Your task to perform on an android device: show emergency info Image 0: 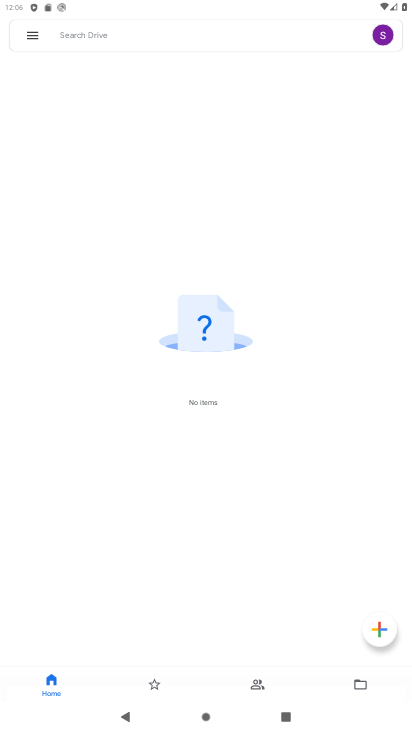
Step 0: press back button
Your task to perform on an android device: show emergency info Image 1: 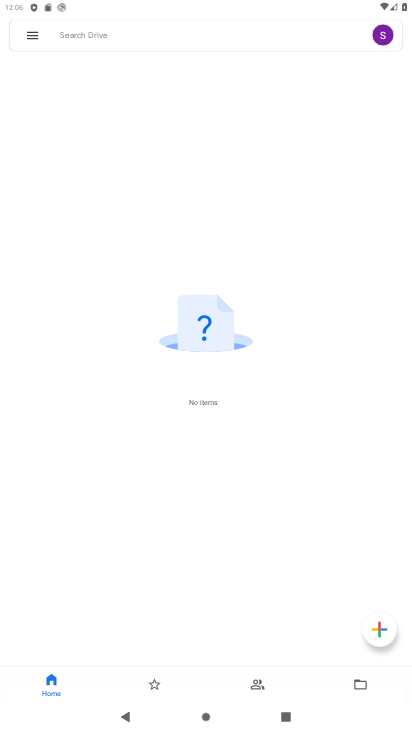
Step 1: press back button
Your task to perform on an android device: show emergency info Image 2: 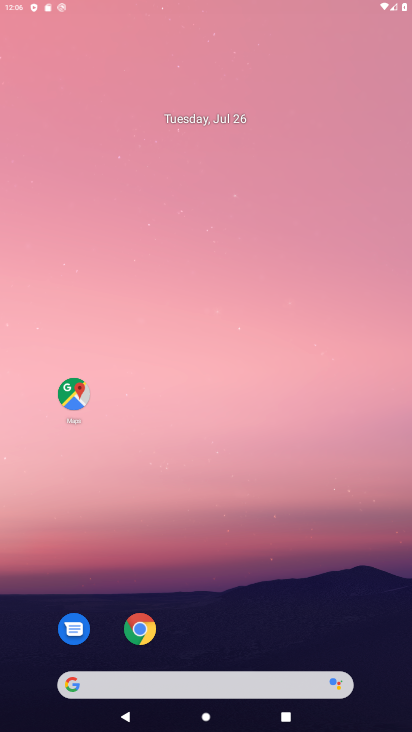
Step 2: press back button
Your task to perform on an android device: show emergency info Image 3: 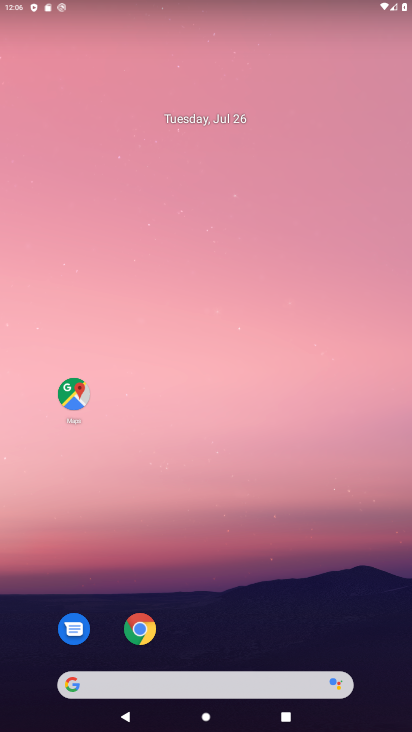
Step 3: drag from (231, 684) to (150, 55)
Your task to perform on an android device: show emergency info Image 4: 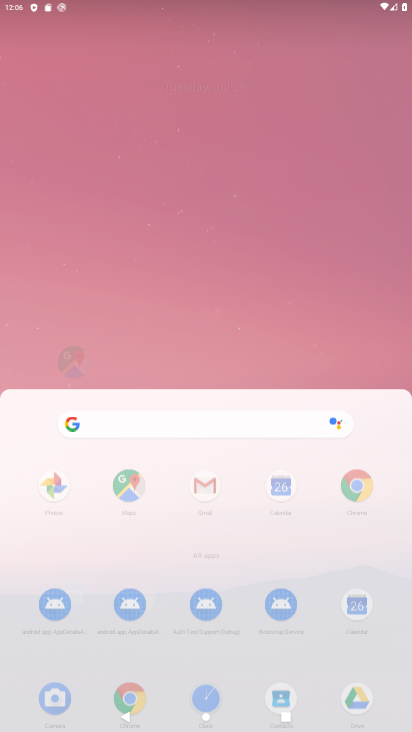
Step 4: drag from (225, 476) to (212, 59)
Your task to perform on an android device: show emergency info Image 5: 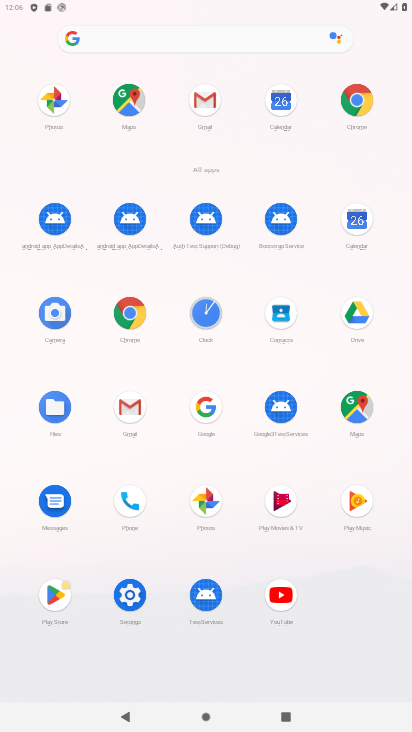
Step 5: click (356, 102)
Your task to perform on an android device: show emergency info Image 6: 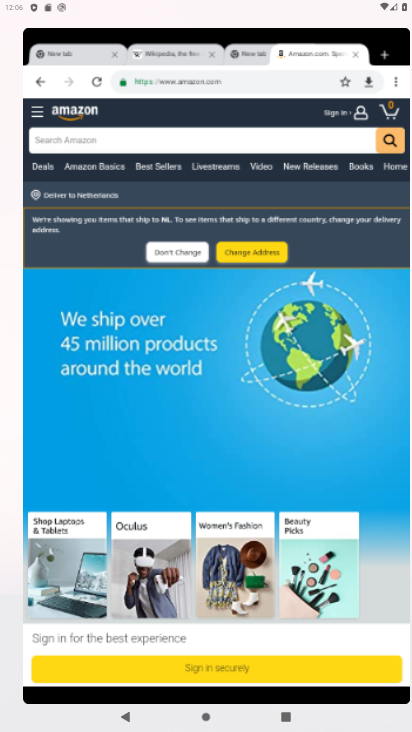
Step 6: click (360, 103)
Your task to perform on an android device: show emergency info Image 7: 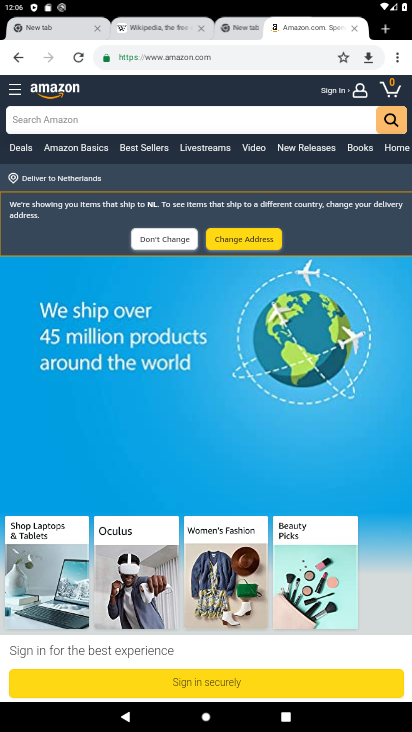
Step 7: press back button
Your task to perform on an android device: show emergency info Image 8: 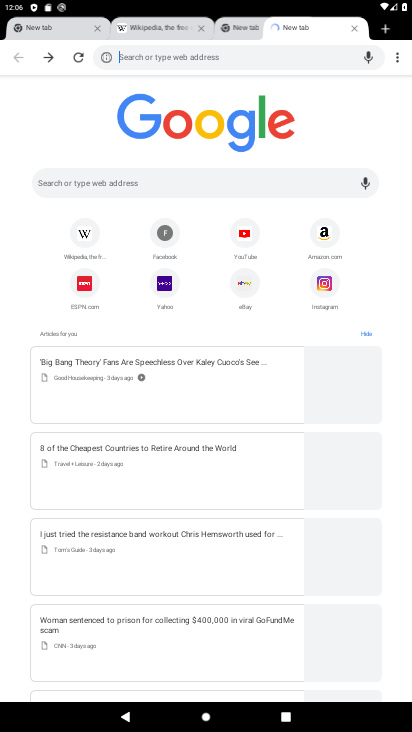
Step 8: press back button
Your task to perform on an android device: show emergency info Image 9: 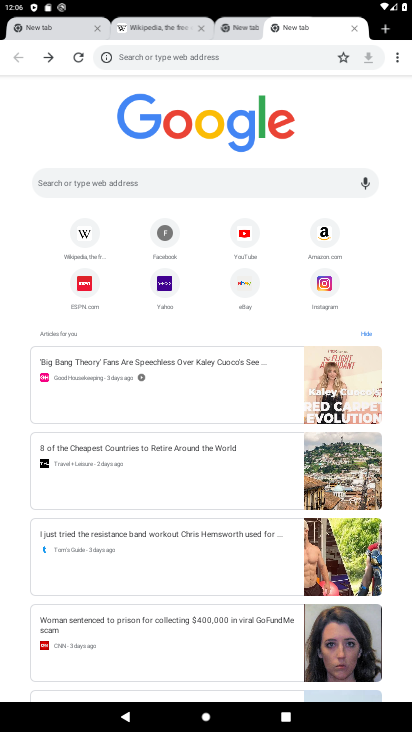
Step 9: click (19, 57)
Your task to perform on an android device: show emergency info Image 10: 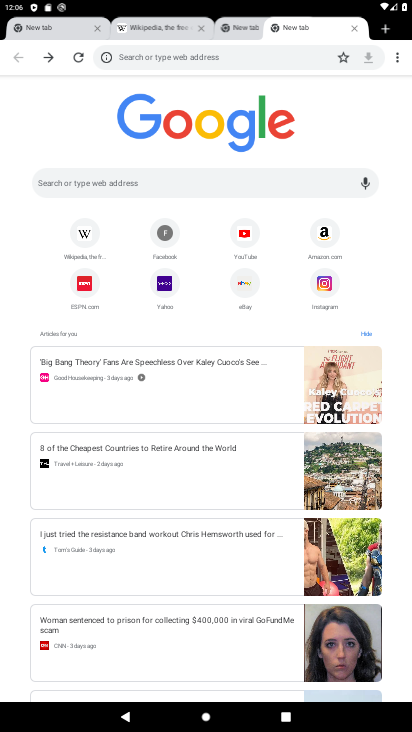
Step 10: press back button
Your task to perform on an android device: show emergency info Image 11: 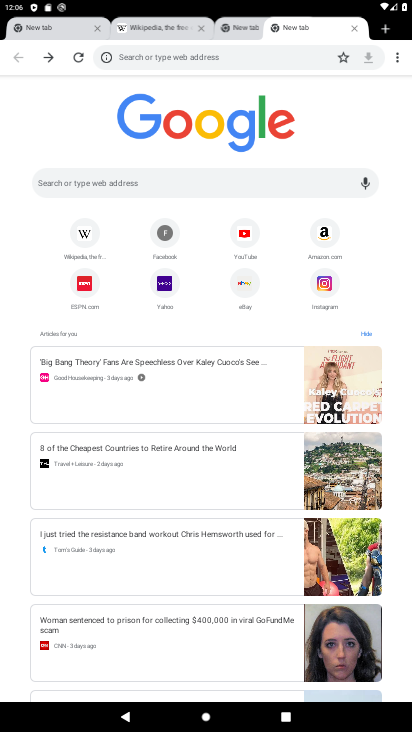
Step 11: press back button
Your task to perform on an android device: show emergency info Image 12: 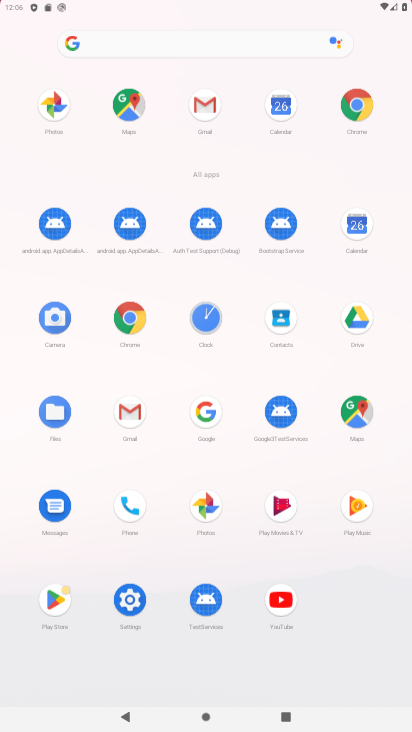
Step 12: press back button
Your task to perform on an android device: show emergency info Image 13: 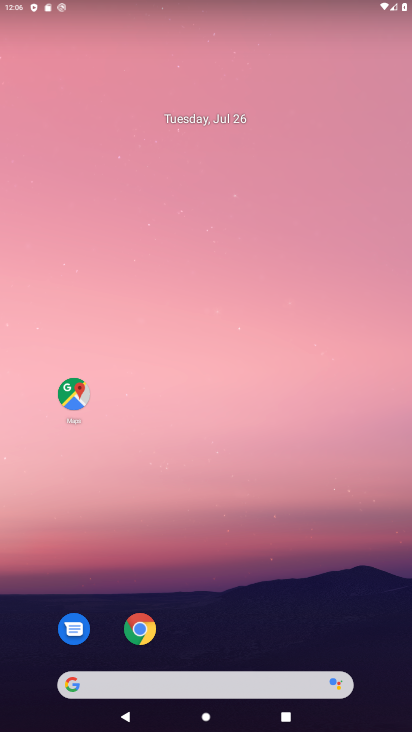
Step 13: drag from (268, 635) to (224, 6)
Your task to perform on an android device: show emergency info Image 14: 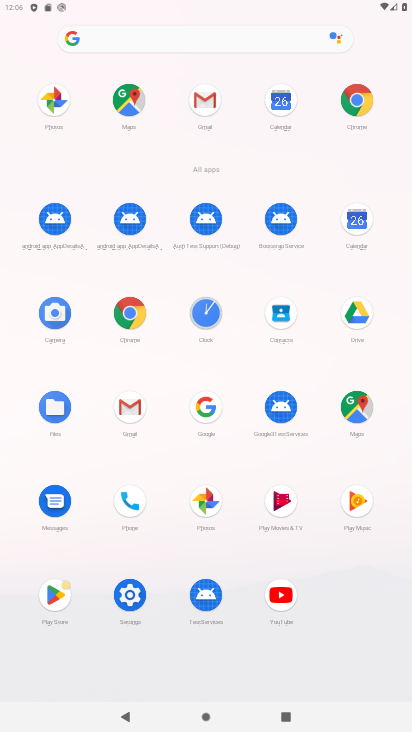
Step 14: click (133, 597)
Your task to perform on an android device: show emergency info Image 15: 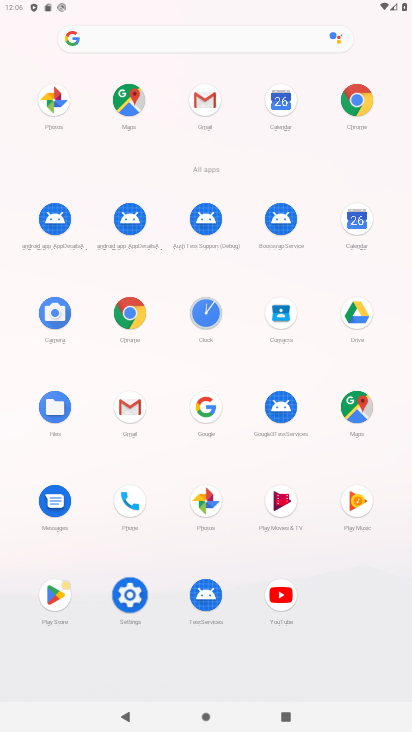
Step 15: click (133, 598)
Your task to perform on an android device: show emergency info Image 16: 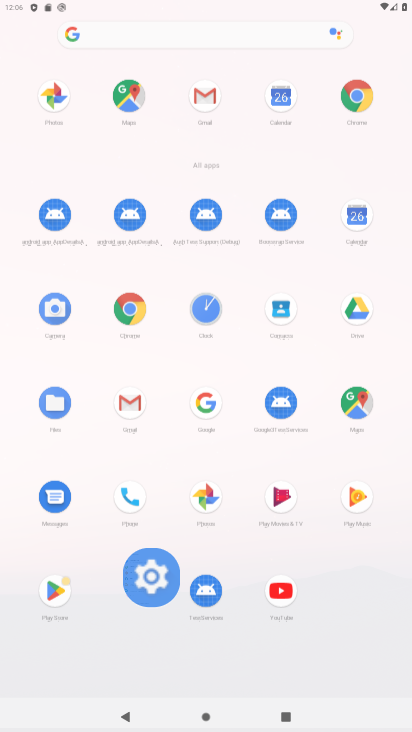
Step 16: click (130, 594)
Your task to perform on an android device: show emergency info Image 17: 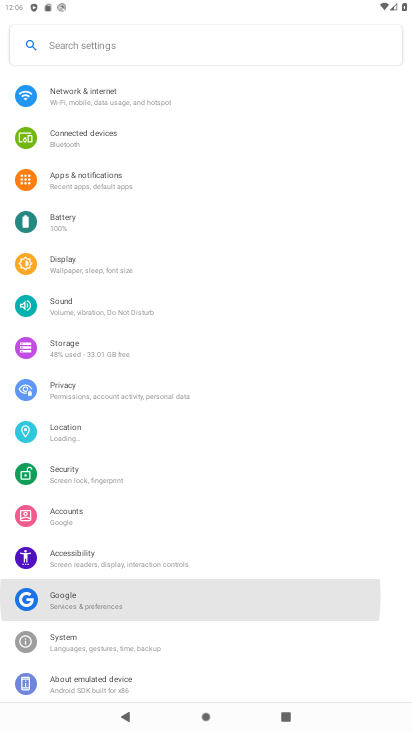
Step 17: click (130, 593)
Your task to perform on an android device: show emergency info Image 18: 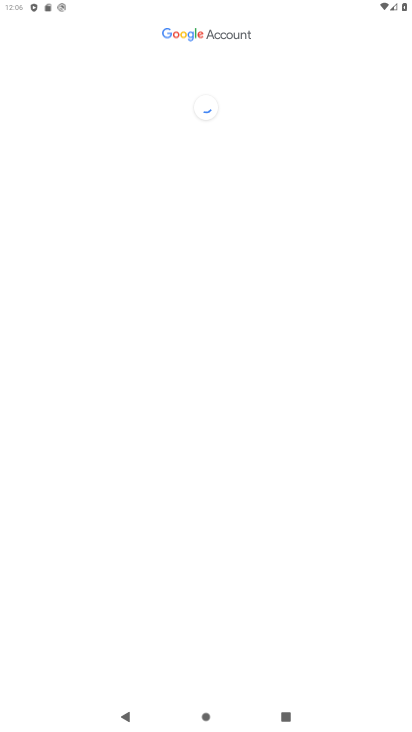
Step 18: drag from (86, 541) to (160, 202)
Your task to perform on an android device: show emergency info Image 19: 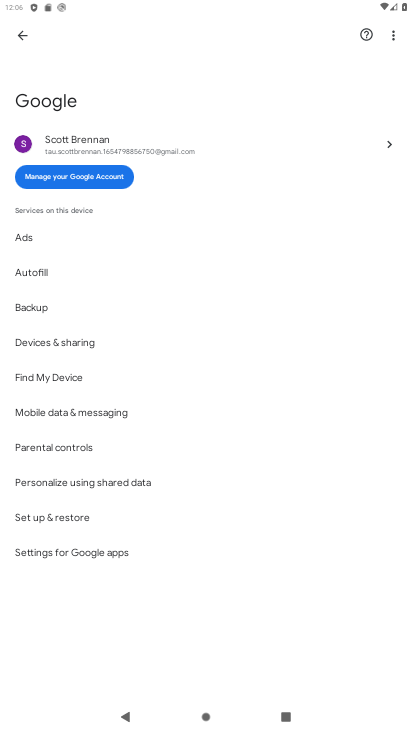
Step 19: click (33, 35)
Your task to perform on an android device: show emergency info Image 20: 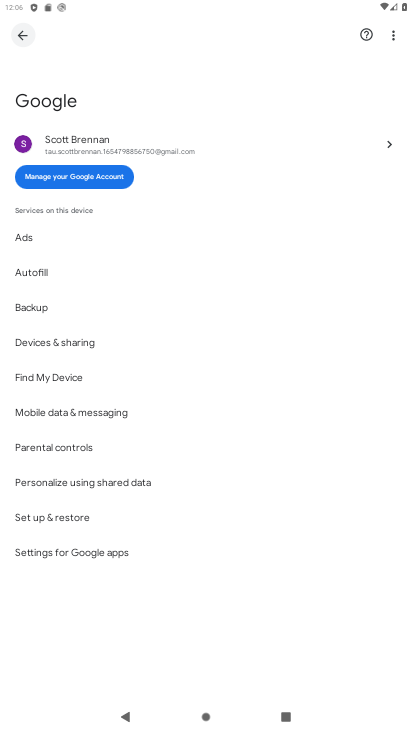
Step 20: click (25, 31)
Your task to perform on an android device: show emergency info Image 21: 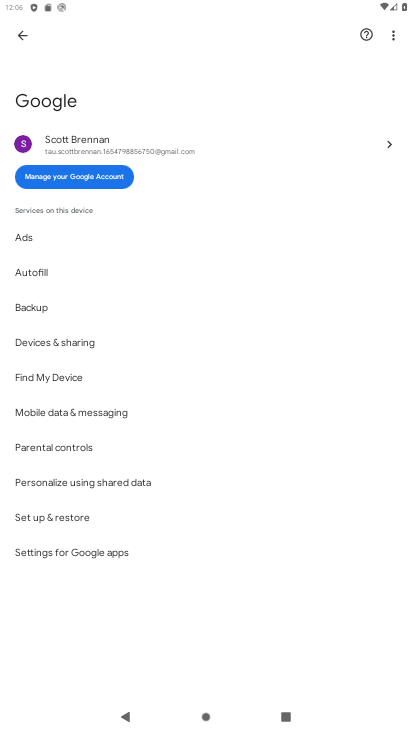
Step 21: click (25, 31)
Your task to perform on an android device: show emergency info Image 22: 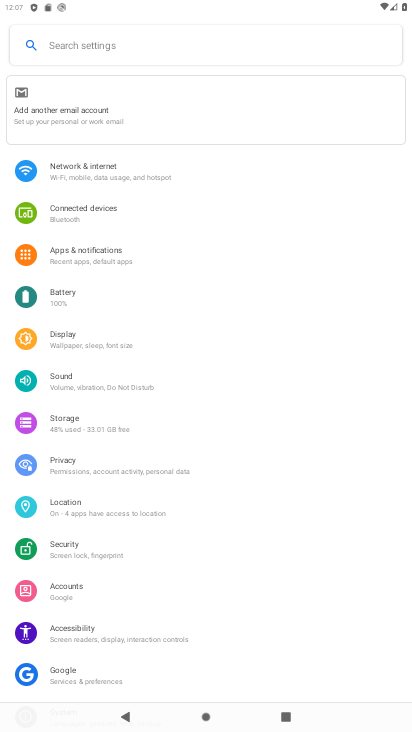
Step 22: drag from (93, 646) to (138, 374)
Your task to perform on an android device: show emergency info Image 23: 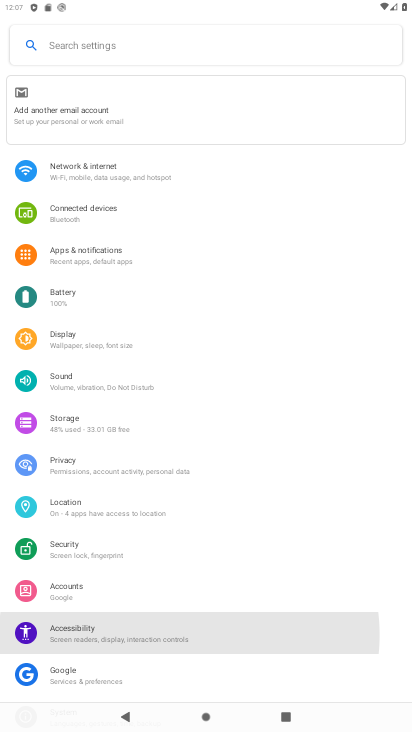
Step 23: drag from (162, 546) to (179, 224)
Your task to perform on an android device: show emergency info Image 24: 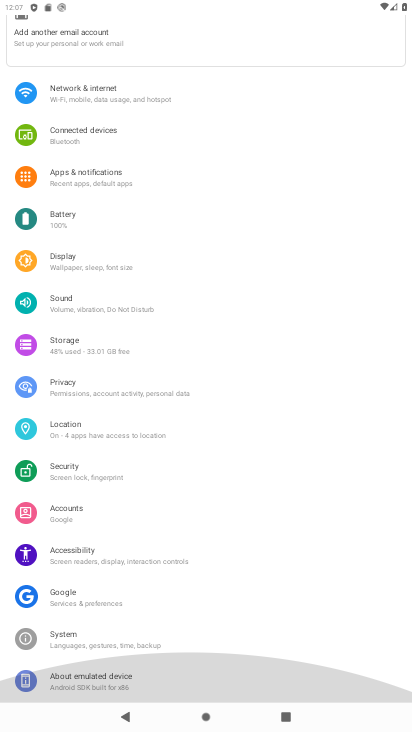
Step 24: drag from (220, 496) to (214, 196)
Your task to perform on an android device: show emergency info Image 25: 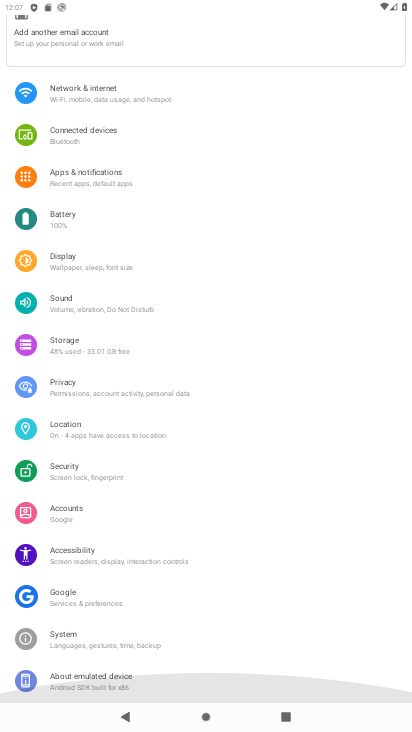
Step 25: drag from (212, 512) to (207, 91)
Your task to perform on an android device: show emergency info Image 26: 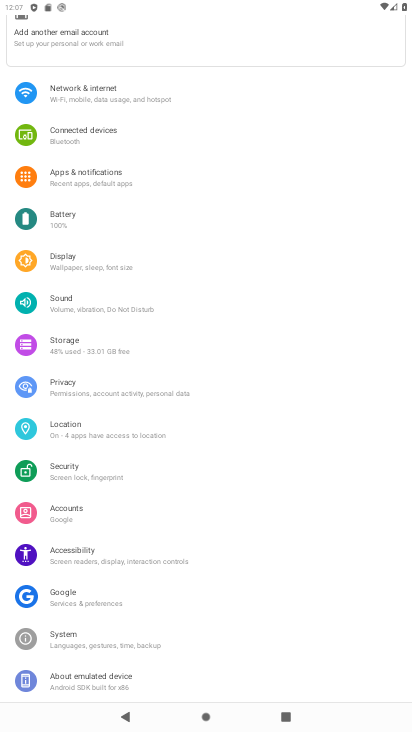
Step 26: click (84, 672)
Your task to perform on an android device: show emergency info Image 27: 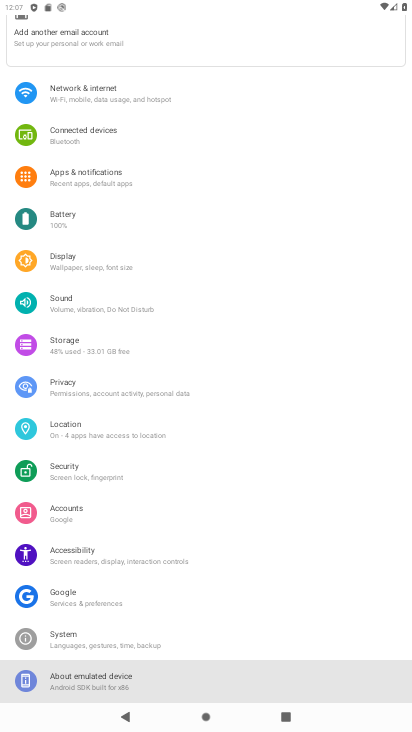
Step 27: click (85, 676)
Your task to perform on an android device: show emergency info Image 28: 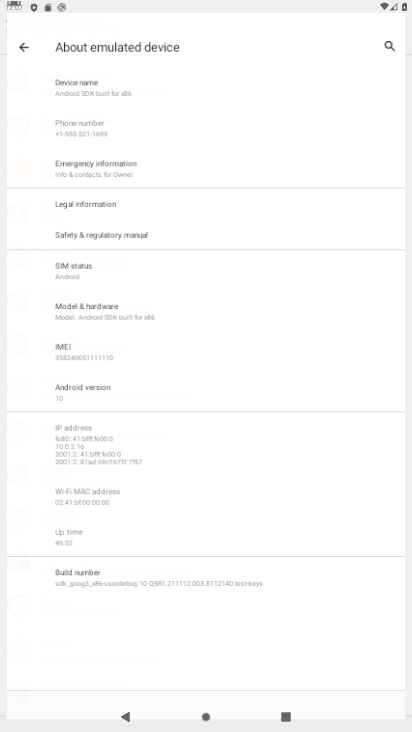
Step 28: click (87, 675)
Your task to perform on an android device: show emergency info Image 29: 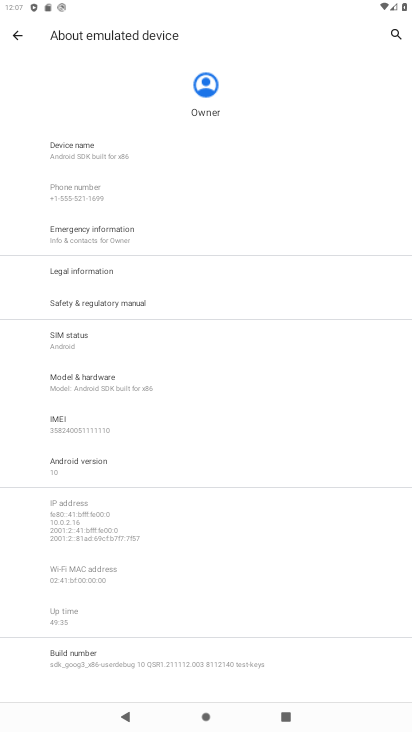
Step 29: task complete